Your task to perform on an android device: refresh tabs in the chrome app Image 0: 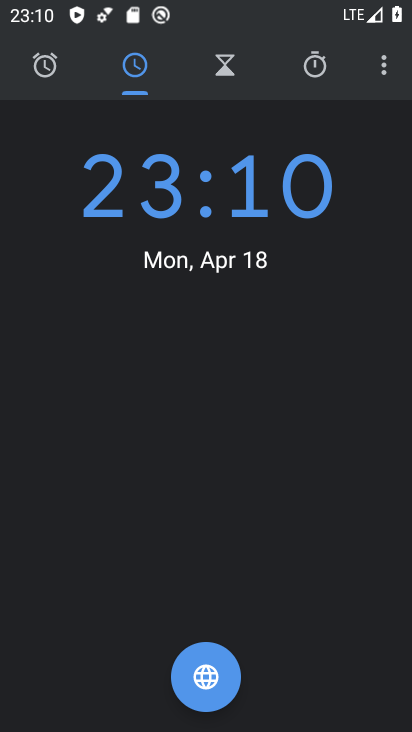
Step 0: press home button
Your task to perform on an android device: refresh tabs in the chrome app Image 1: 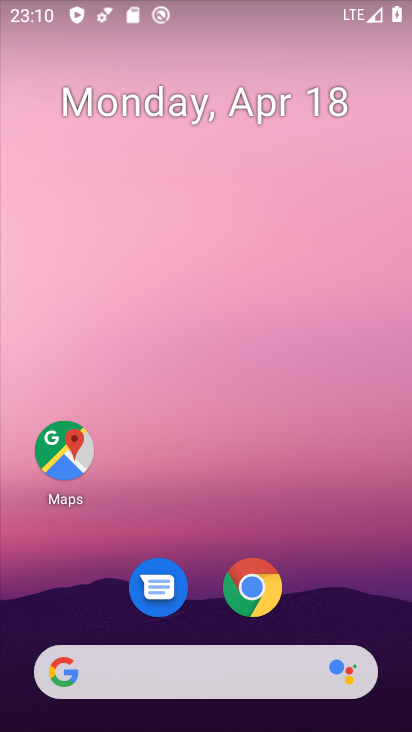
Step 1: click (256, 595)
Your task to perform on an android device: refresh tabs in the chrome app Image 2: 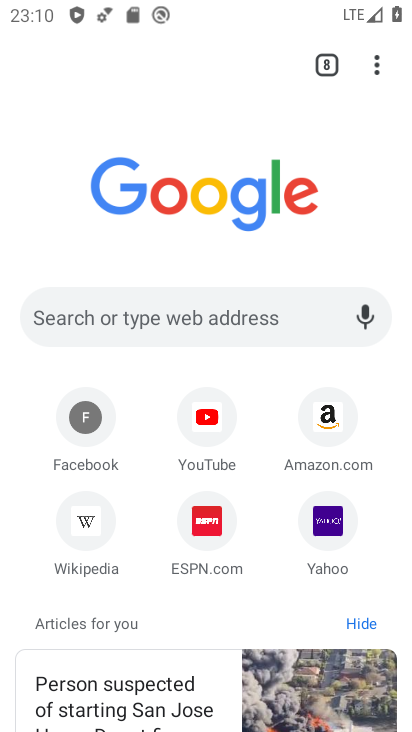
Step 2: click (384, 70)
Your task to perform on an android device: refresh tabs in the chrome app Image 3: 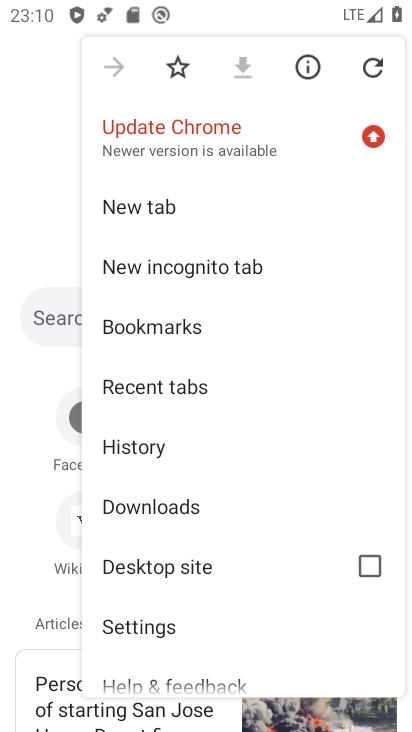
Step 3: click (382, 71)
Your task to perform on an android device: refresh tabs in the chrome app Image 4: 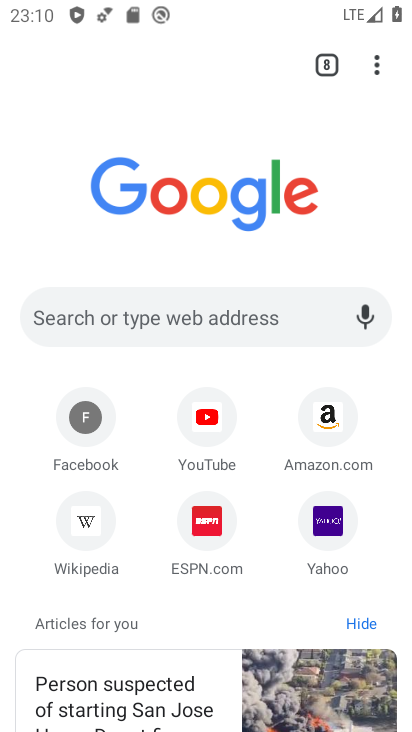
Step 4: click (372, 64)
Your task to perform on an android device: refresh tabs in the chrome app Image 5: 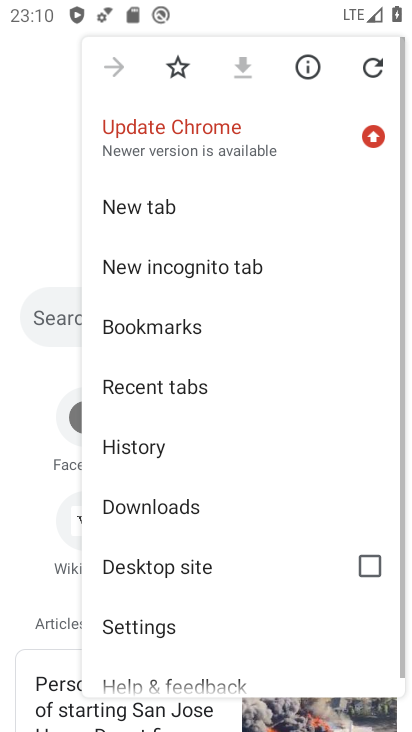
Step 5: click (378, 77)
Your task to perform on an android device: refresh tabs in the chrome app Image 6: 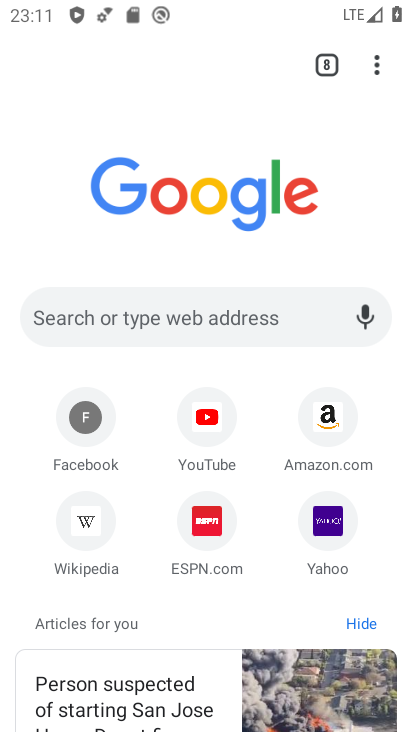
Step 6: task complete